Your task to perform on an android device: Search for "jbl charge 4" on newegg.com, select the first entry, add it to the cart, then select checkout. Image 0: 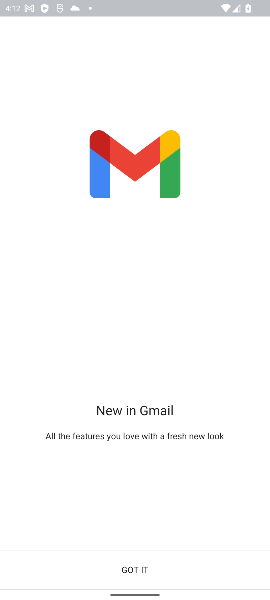
Step 0: press home button
Your task to perform on an android device: Search for "jbl charge 4" on newegg.com, select the first entry, add it to the cart, then select checkout. Image 1: 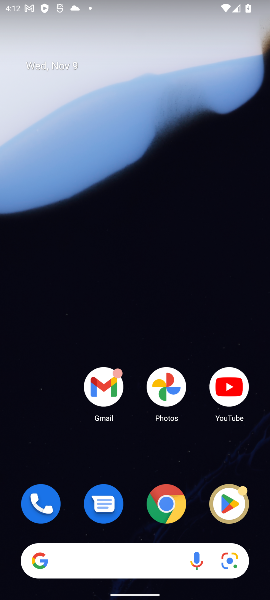
Step 1: click (108, 558)
Your task to perform on an android device: Search for "jbl charge 4" on newegg.com, select the first entry, add it to the cart, then select checkout. Image 2: 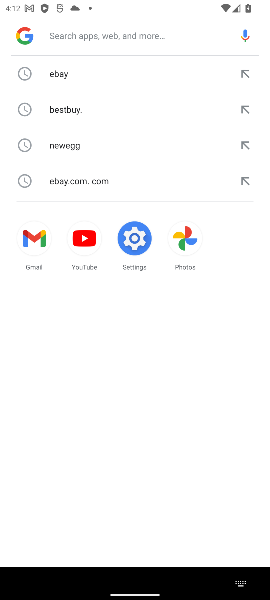
Step 2: click (115, 152)
Your task to perform on an android device: Search for "jbl charge 4" on newegg.com, select the first entry, add it to the cart, then select checkout. Image 3: 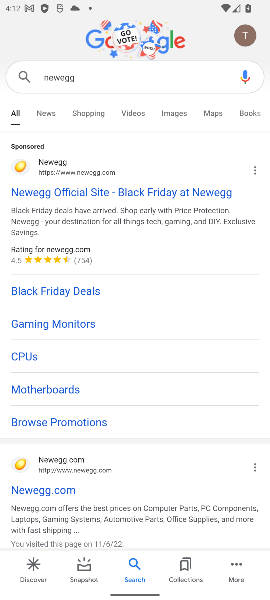
Step 3: click (41, 167)
Your task to perform on an android device: Search for "jbl charge 4" on newegg.com, select the first entry, add it to the cart, then select checkout. Image 4: 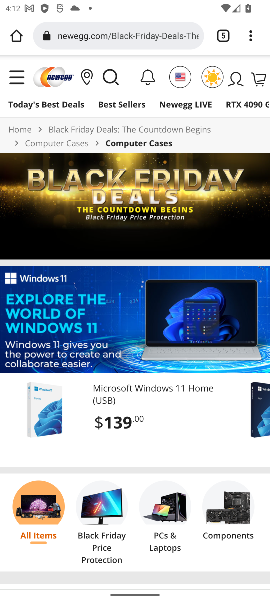
Step 4: click (106, 78)
Your task to perform on an android device: Search for "jbl charge 4" on newegg.com, select the first entry, add it to the cart, then select checkout. Image 5: 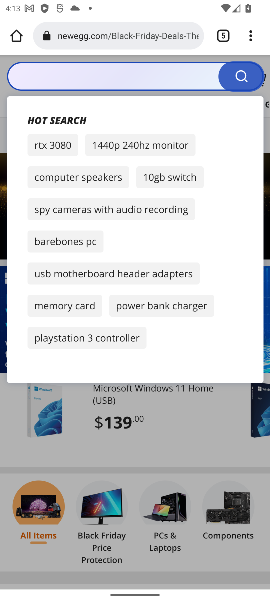
Step 5: click (112, 78)
Your task to perform on an android device: Search for "jbl charge 4" on newegg.com, select the first entry, add it to the cart, then select checkout. Image 6: 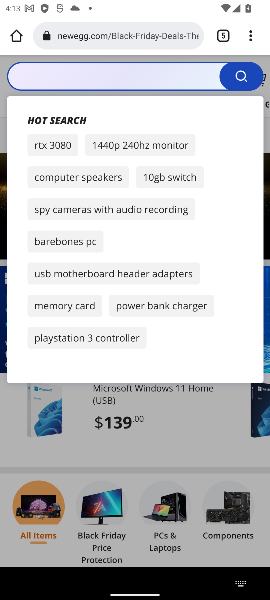
Step 6: type "jbl charge 4"
Your task to perform on an android device: Search for "jbl charge 4" on newegg.com, select the first entry, add it to the cart, then select checkout. Image 7: 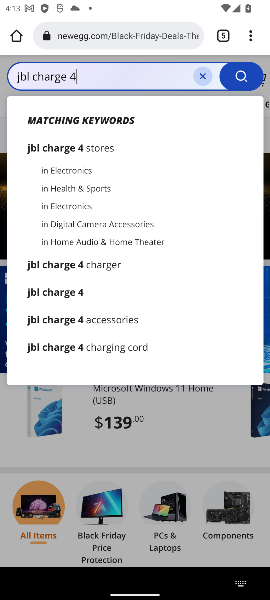
Step 7: click (89, 147)
Your task to perform on an android device: Search for "jbl charge 4" on newegg.com, select the first entry, add it to the cart, then select checkout. Image 8: 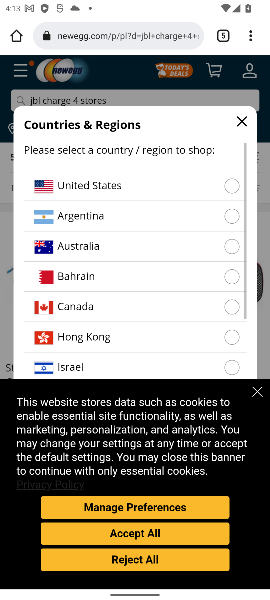
Step 8: click (262, 393)
Your task to perform on an android device: Search for "jbl charge 4" on newegg.com, select the first entry, add it to the cart, then select checkout. Image 9: 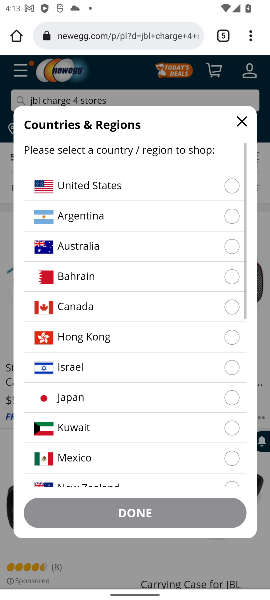
Step 9: click (230, 189)
Your task to perform on an android device: Search for "jbl charge 4" on newegg.com, select the first entry, add it to the cart, then select checkout. Image 10: 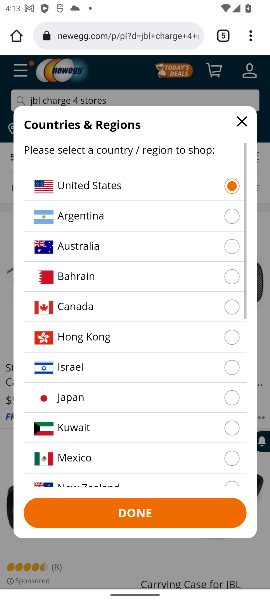
Step 10: click (134, 514)
Your task to perform on an android device: Search for "jbl charge 4" on newegg.com, select the first entry, add it to the cart, then select checkout. Image 11: 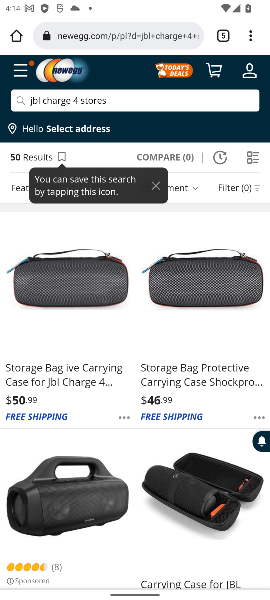
Step 11: click (76, 291)
Your task to perform on an android device: Search for "jbl charge 4" on newegg.com, select the first entry, add it to the cart, then select checkout. Image 12: 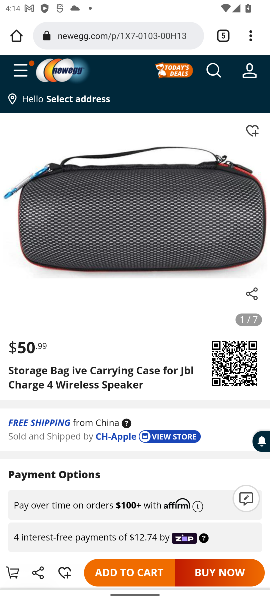
Step 12: click (151, 567)
Your task to perform on an android device: Search for "jbl charge 4" on newegg.com, select the first entry, add it to the cart, then select checkout. Image 13: 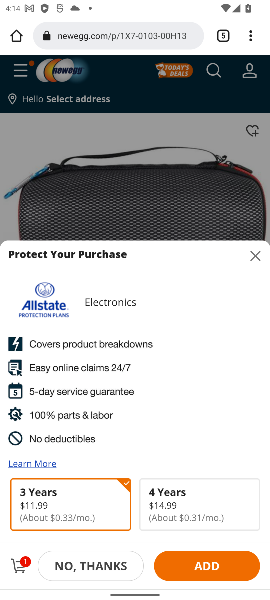
Step 13: click (107, 571)
Your task to perform on an android device: Search for "jbl charge 4" on newegg.com, select the first entry, add it to the cart, then select checkout. Image 14: 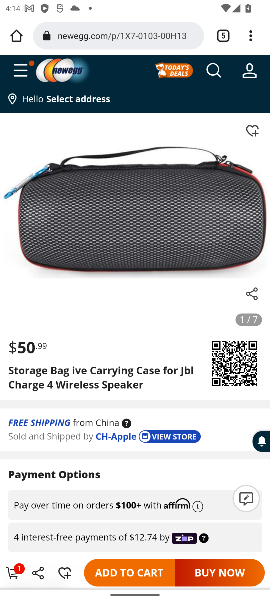
Step 14: click (12, 571)
Your task to perform on an android device: Search for "jbl charge 4" on newegg.com, select the first entry, add it to the cart, then select checkout. Image 15: 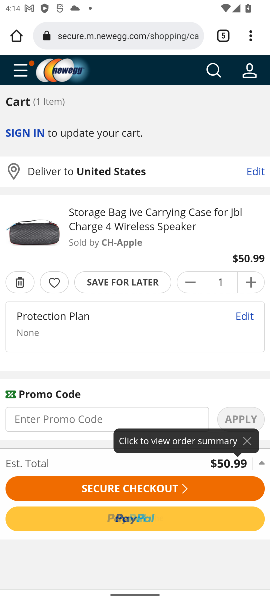
Step 15: click (120, 494)
Your task to perform on an android device: Search for "jbl charge 4" on newegg.com, select the first entry, add it to the cart, then select checkout. Image 16: 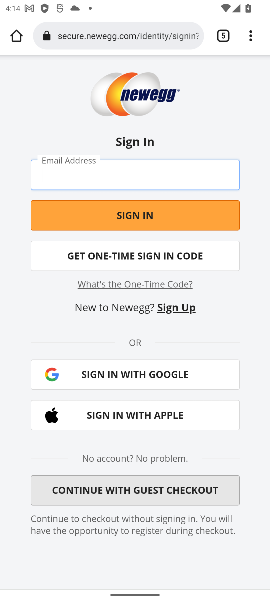
Step 16: task complete